Your task to perform on an android device: What's on my calendar tomorrow? Image 0: 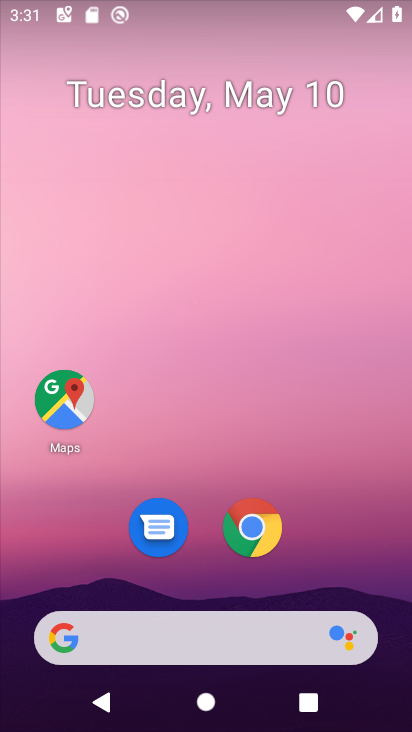
Step 0: drag from (395, 659) to (359, 276)
Your task to perform on an android device: What's on my calendar tomorrow? Image 1: 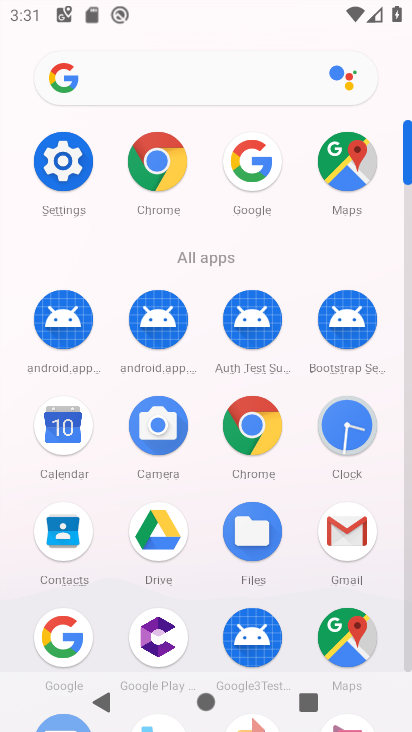
Step 1: click (71, 426)
Your task to perform on an android device: What's on my calendar tomorrow? Image 2: 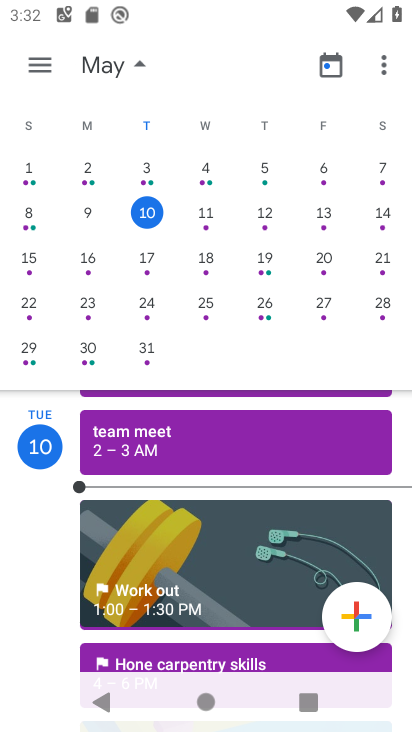
Step 2: click (141, 67)
Your task to perform on an android device: What's on my calendar tomorrow? Image 3: 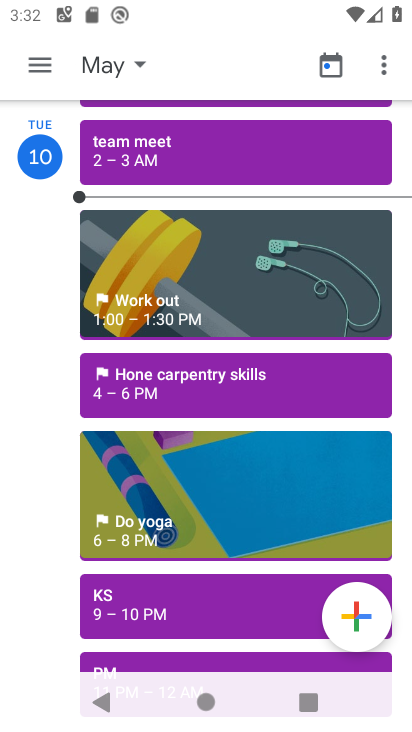
Step 3: click (136, 64)
Your task to perform on an android device: What's on my calendar tomorrow? Image 4: 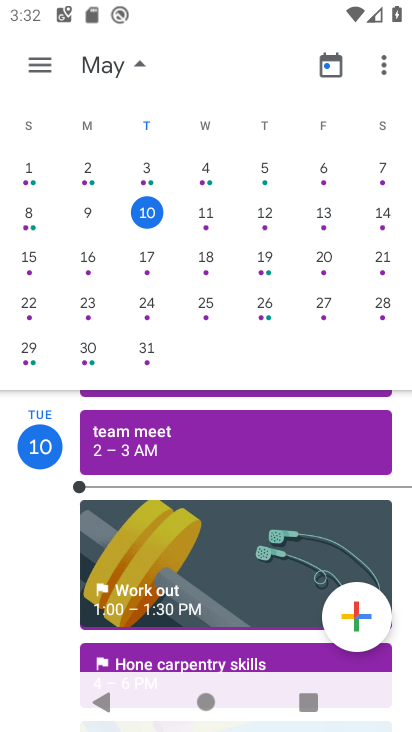
Step 4: click (149, 151)
Your task to perform on an android device: What's on my calendar tomorrow? Image 5: 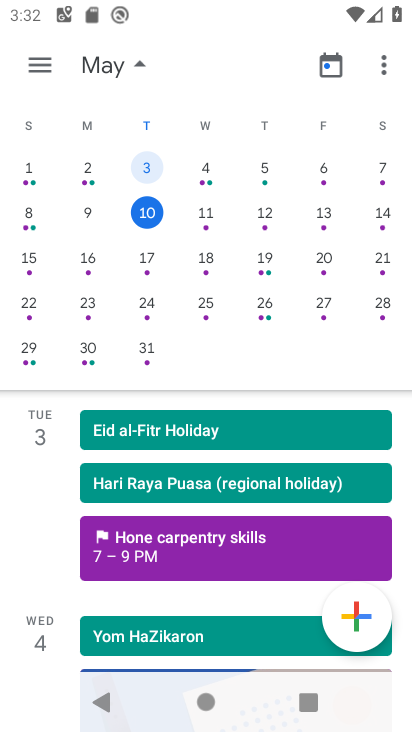
Step 5: click (156, 206)
Your task to perform on an android device: What's on my calendar tomorrow? Image 6: 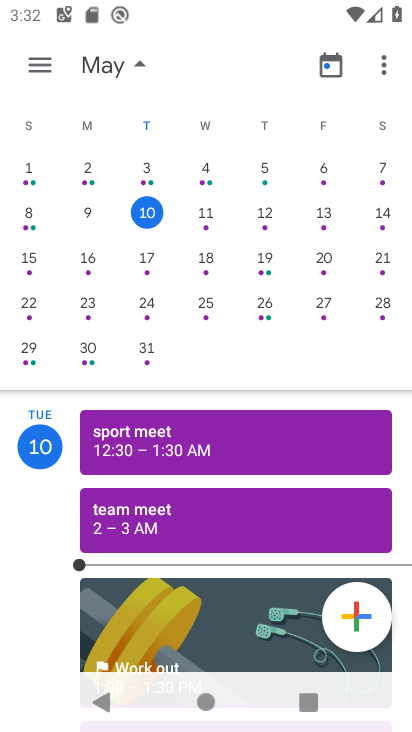
Step 6: task complete